Your task to perform on an android device: Open Maps and search for coffee Image 0: 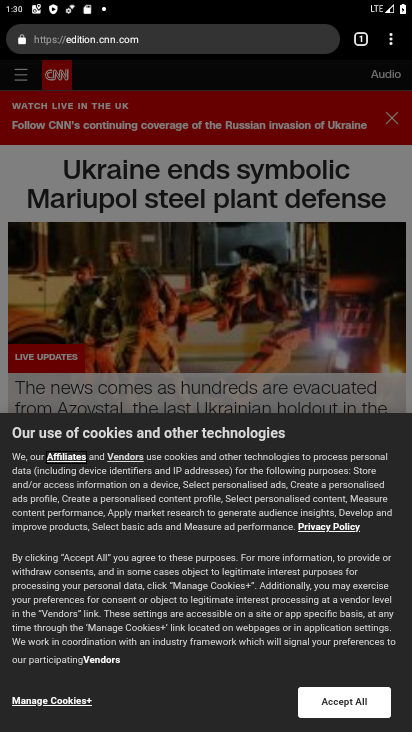
Step 0: press home button
Your task to perform on an android device: Open Maps and search for coffee Image 1: 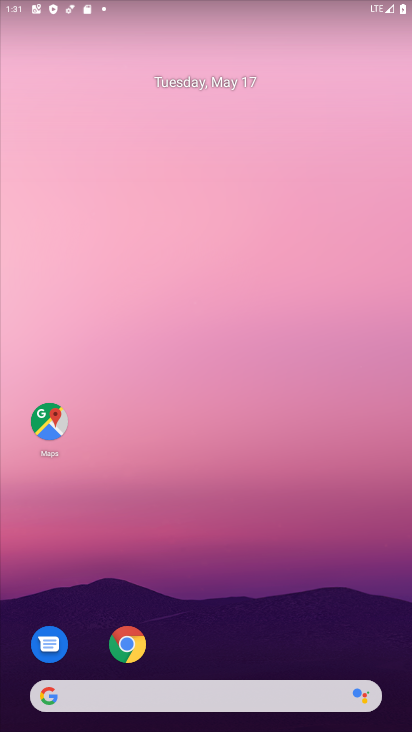
Step 1: click (53, 428)
Your task to perform on an android device: Open Maps and search for coffee Image 2: 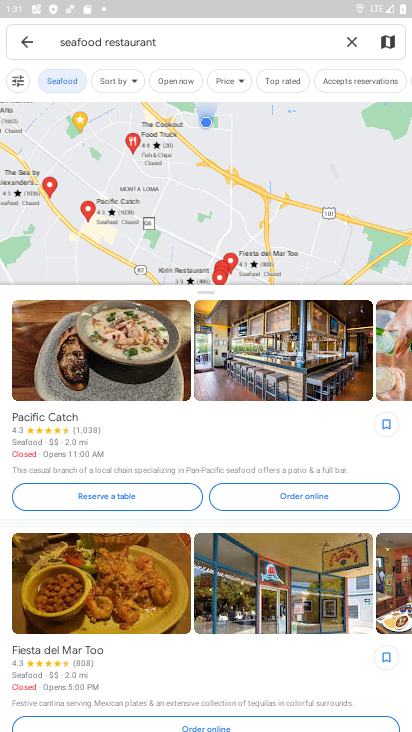
Step 2: click (348, 37)
Your task to perform on an android device: Open Maps and search for coffee Image 3: 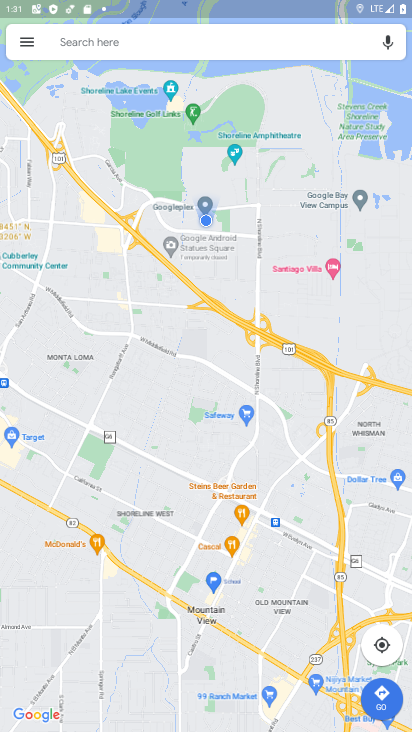
Step 3: click (165, 42)
Your task to perform on an android device: Open Maps and search for coffee Image 4: 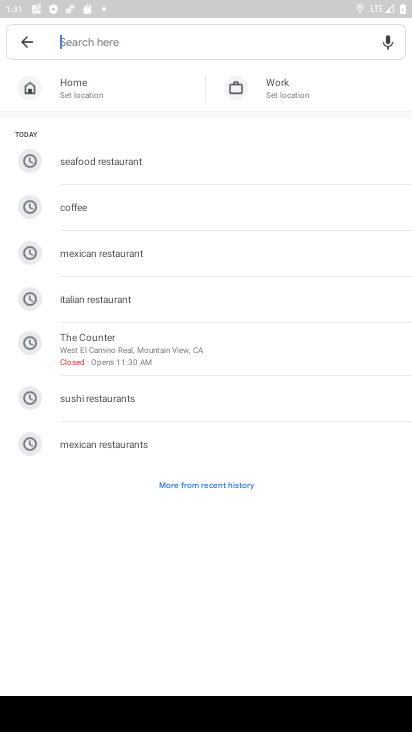
Step 4: click (120, 197)
Your task to perform on an android device: Open Maps and search for coffee Image 5: 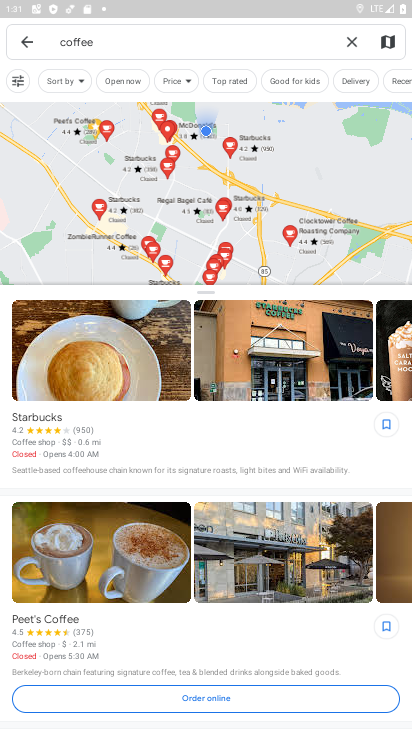
Step 5: task complete